Your task to perform on an android device: clear all cookies in the chrome app Image 0: 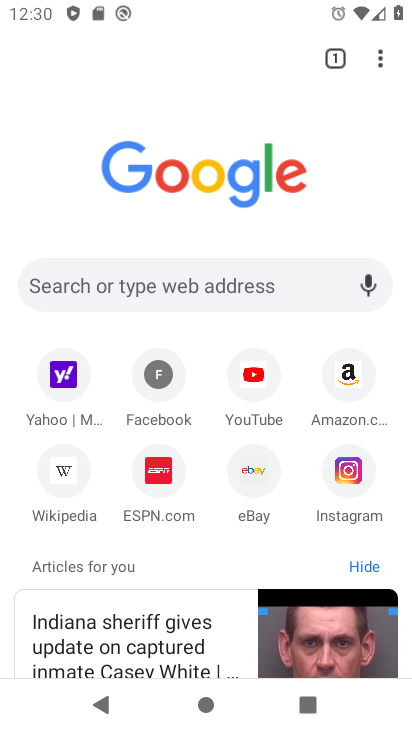
Step 0: drag from (233, 605) to (260, 206)
Your task to perform on an android device: clear all cookies in the chrome app Image 1: 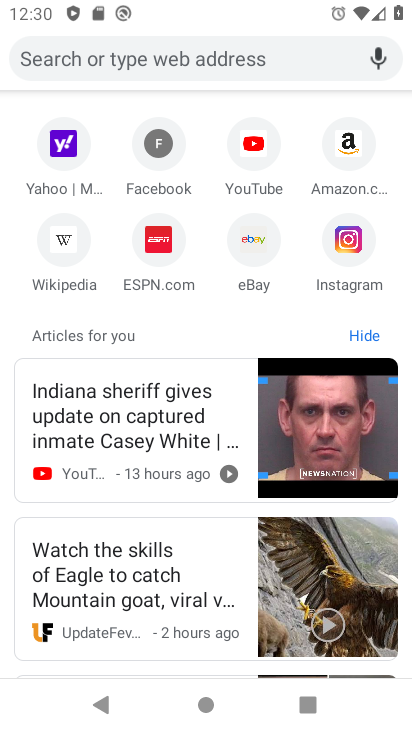
Step 1: drag from (217, 213) to (247, 650)
Your task to perform on an android device: clear all cookies in the chrome app Image 2: 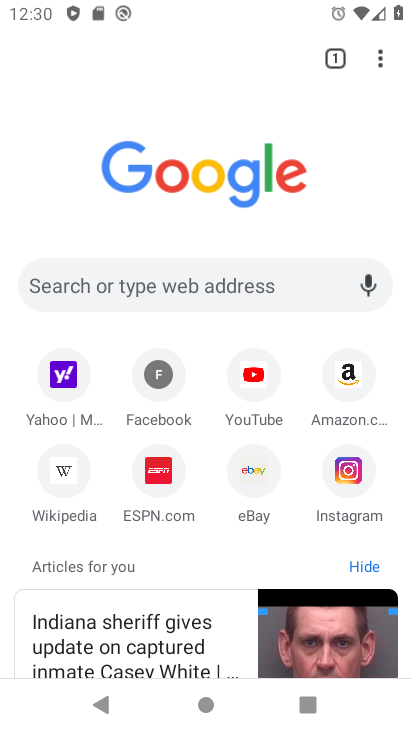
Step 2: drag from (383, 61) to (195, 319)
Your task to perform on an android device: clear all cookies in the chrome app Image 3: 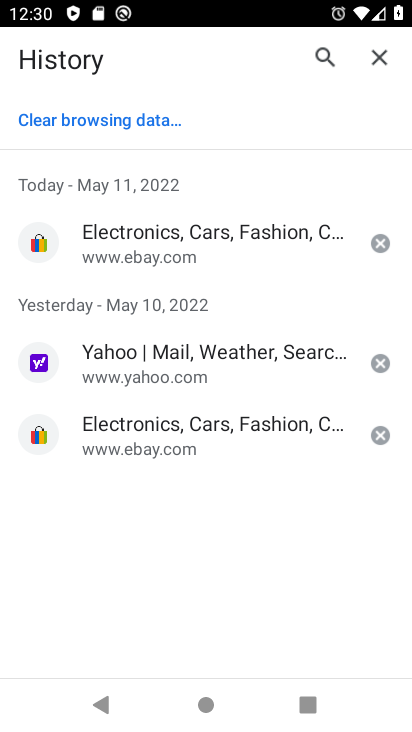
Step 3: click (88, 130)
Your task to perform on an android device: clear all cookies in the chrome app Image 4: 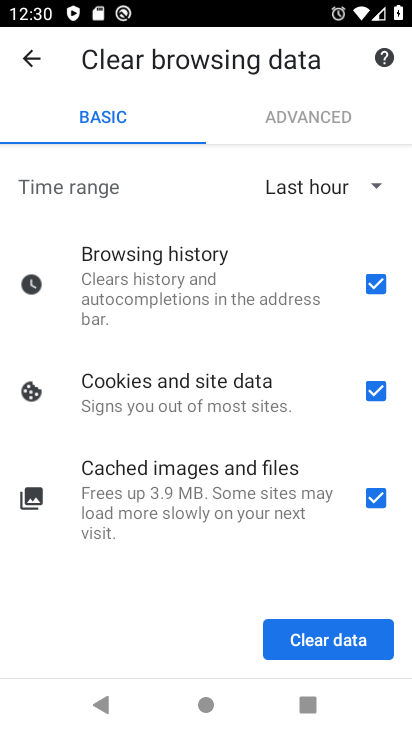
Step 4: click (363, 287)
Your task to perform on an android device: clear all cookies in the chrome app Image 5: 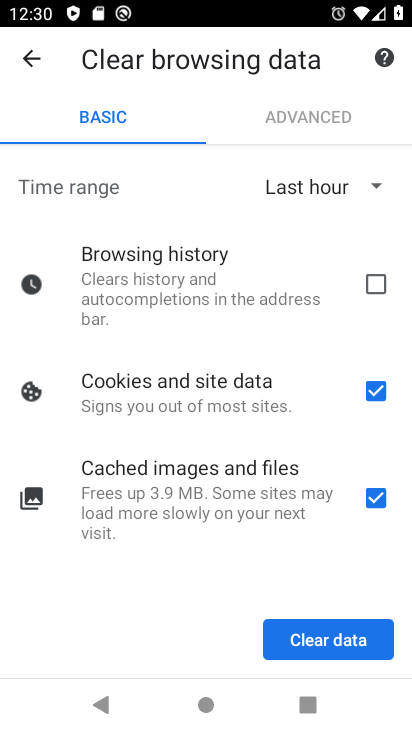
Step 5: click (315, 635)
Your task to perform on an android device: clear all cookies in the chrome app Image 6: 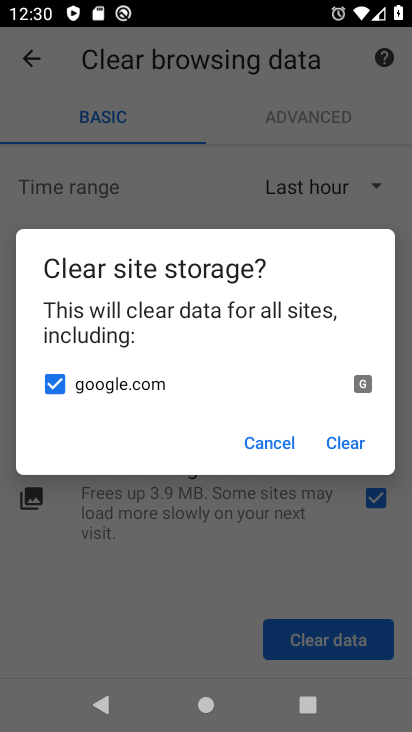
Step 6: click (336, 441)
Your task to perform on an android device: clear all cookies in the chrome app Image 7: 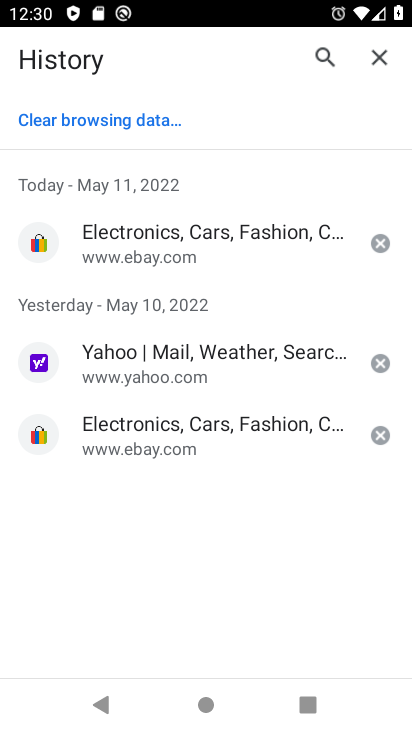
Step 7: task complete